Your task to perform on an android device: turn on wifi Image 0: 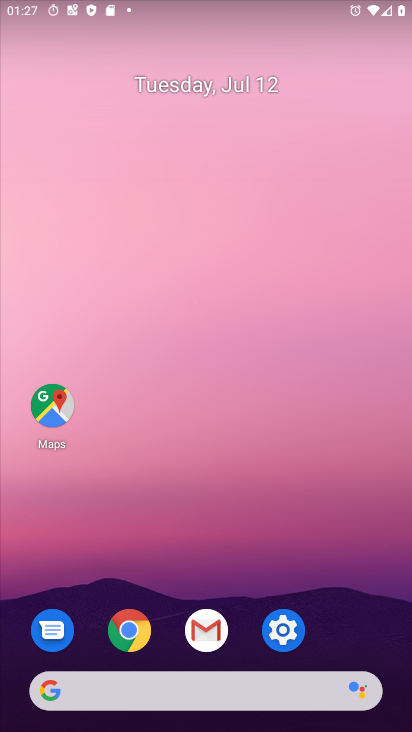
Step 0: click (289, 627)
Your task to perform on an android device: turn on wifi Image 1: 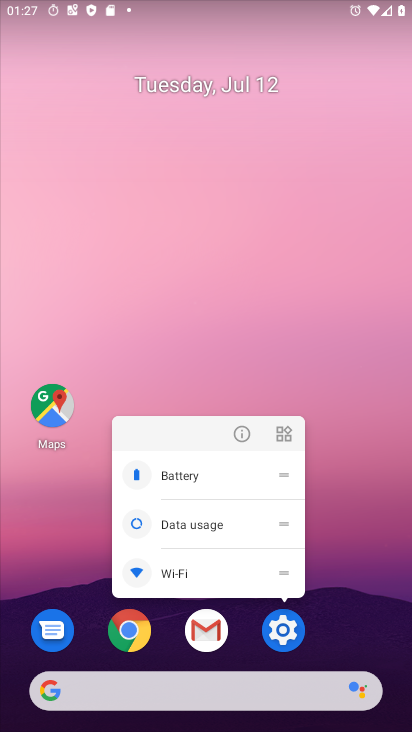
Step 1: click (278, 620)
Your task to perform on an android device: turn on wifi Image 2: 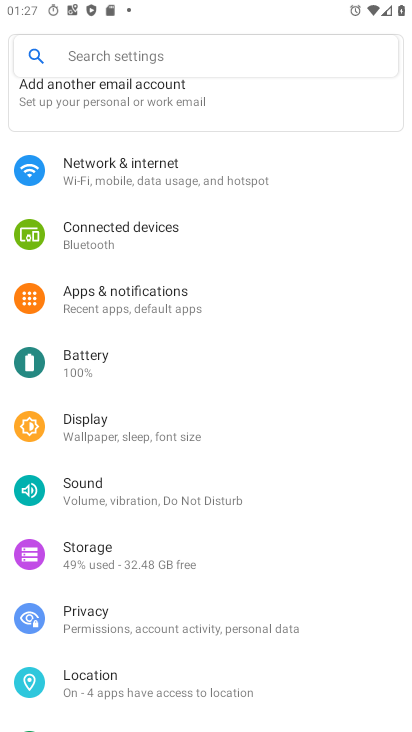
Step 2: click (117, 61)
Your task to perform on an android device: turn on wifi Image 3: 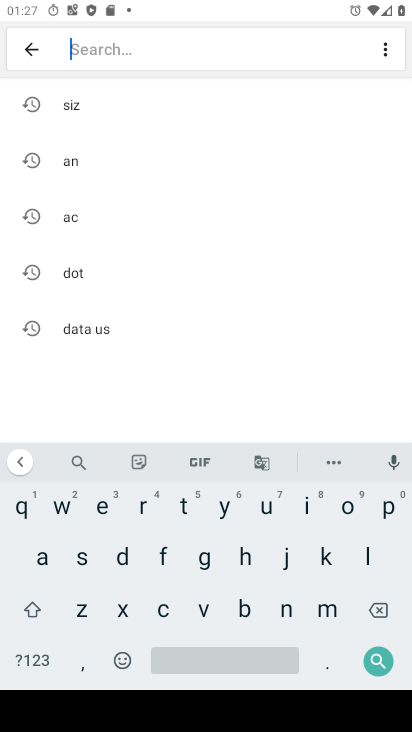
Step 3: click (32, 52)
Your task to perform on an android device: turn on wifi Image 4: 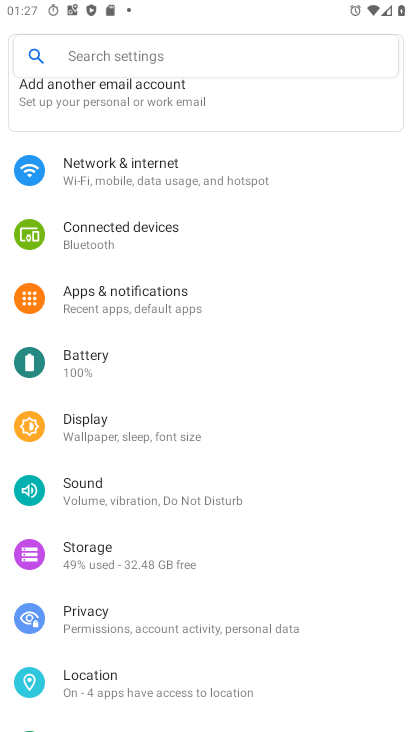
Step 4: click (156, 167)
Your task to perform on an android device: turn on wifi Image 5: 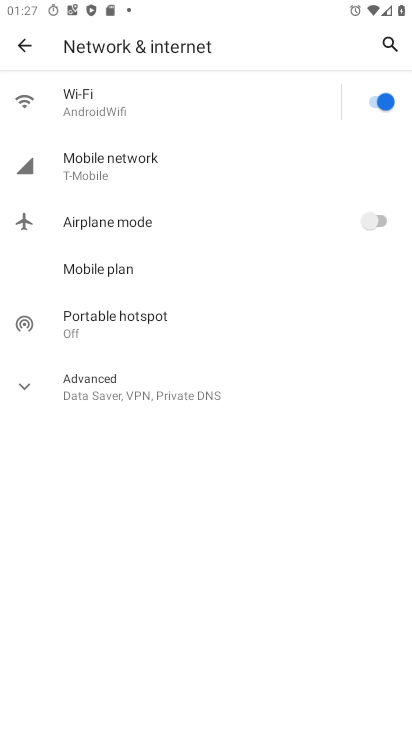
Step 5: click (216, 90)
Your task to perform on an android device: turn on wifi Image 6: 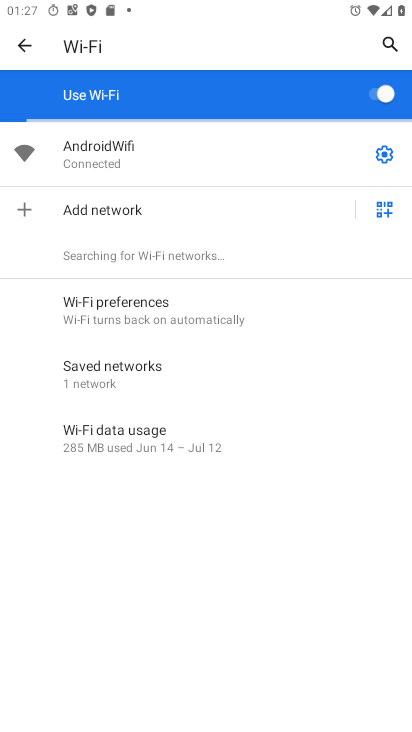
Step 6: click (376, 92)
Your task to perform on an android device: turn on wifi Image 7: 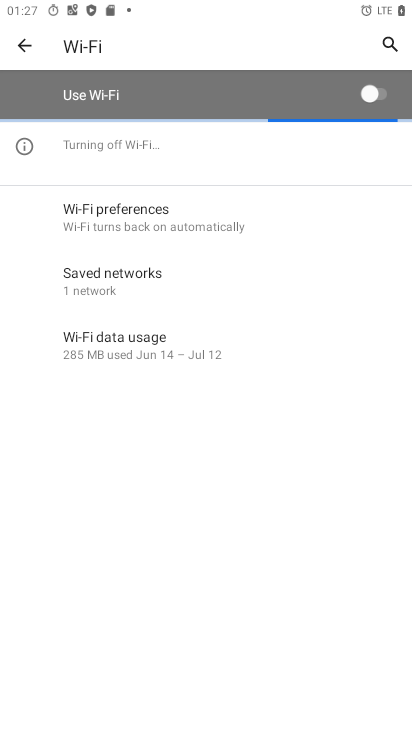
Step 7: click (375, 92)
Your task to perform on an android device: turn on wifi Image 8: 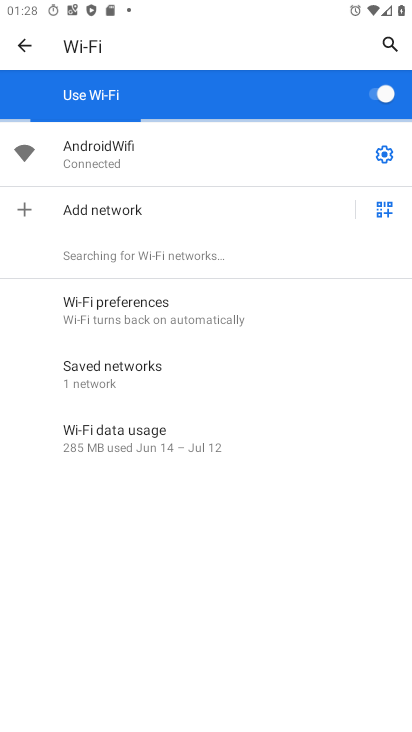
Step 8: task complete